Your task to perform on an android device: see tabs open on other devices in the chrome app Image 0: 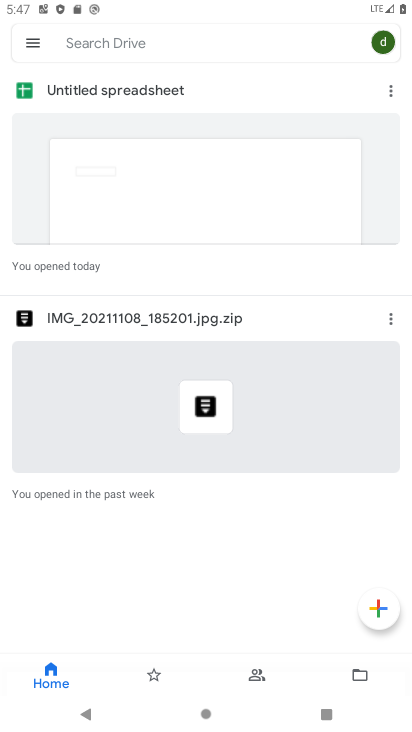
Step 0: press home button
Your task to perform on an android device: see tabs open on other devices in the chrome app Image 1: 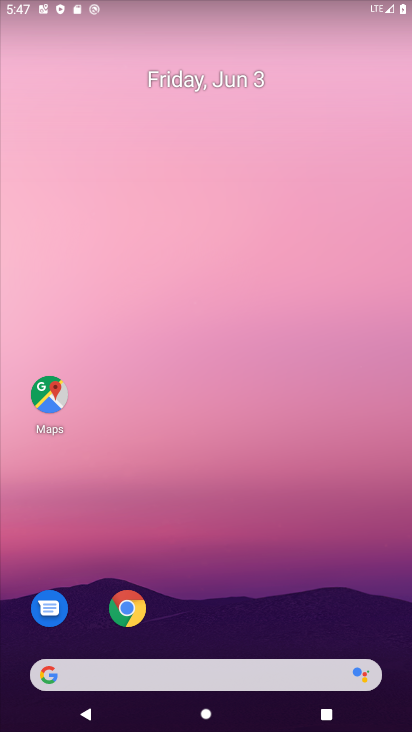
Step 1: click (123, 607)
Your task to perform on an android device: see tabs open on other devices in the chrome app Image 2: 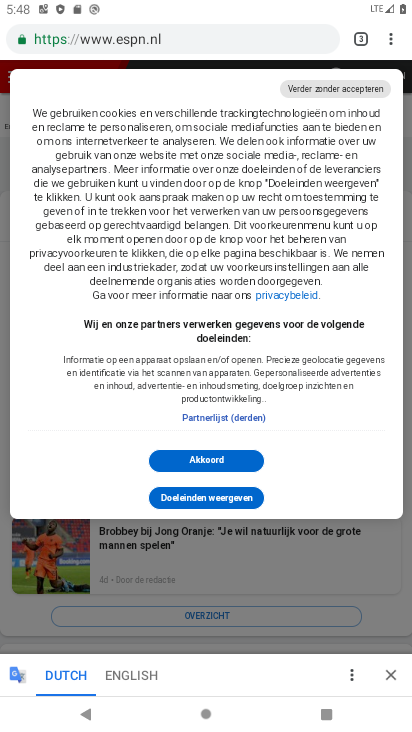
Step 2: task complete